Your task to perform on an android device: turn on sleep mode Image 0: 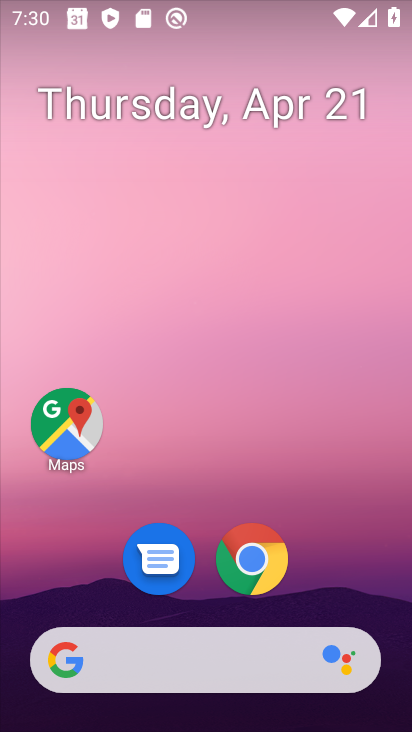
Step 0: drag from (345, 561) to (391, 184)
Your task to perform on an android device: turn on sleep mode Image 1: 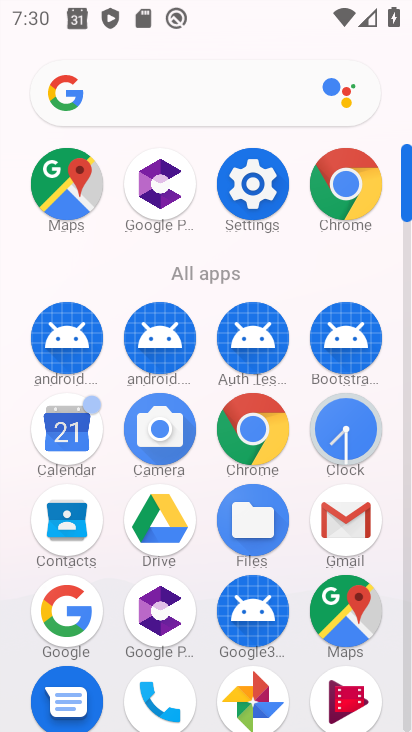
Step 1: click (230, 193)
Your task to perform on an android device: turn on sleep mode Image 2: 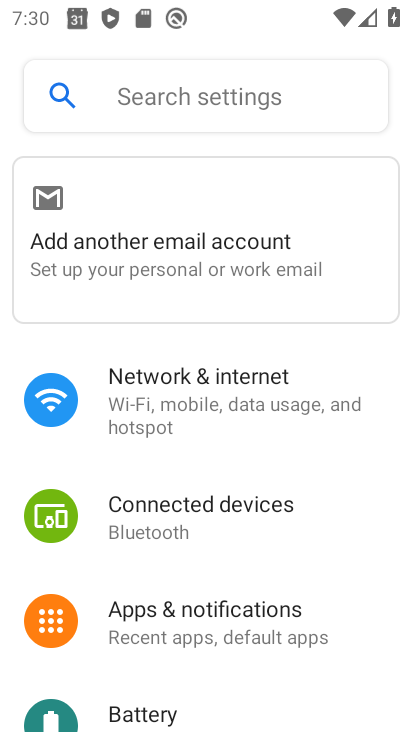
Step 2: click (199, 91)
Your task to perform on an android device: turn on sleep mode Image 3: 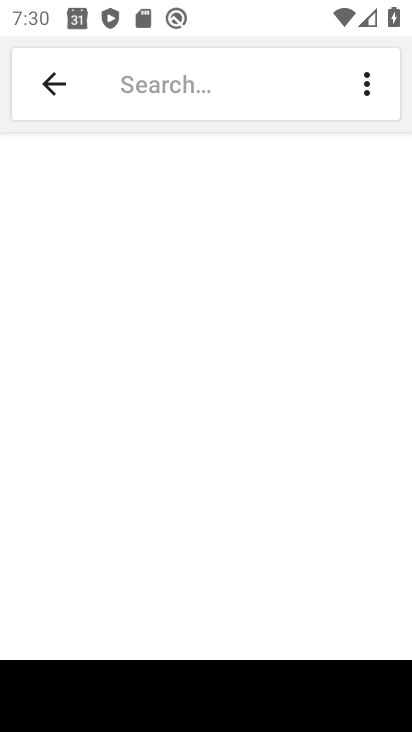
Step 3: type "sleep mode"
Your task to perform on an android device: turn on sleep mode Image 4: 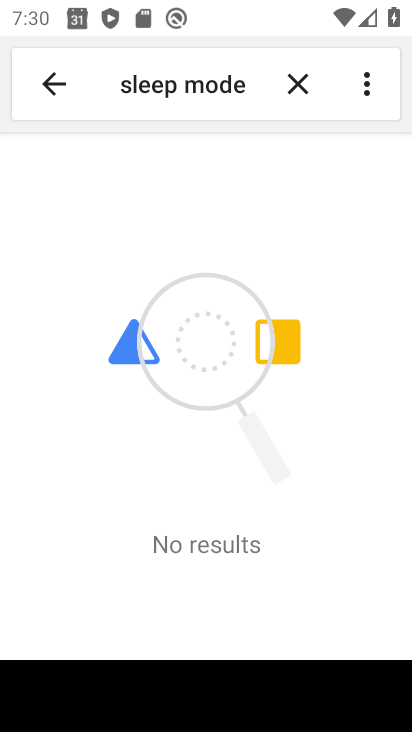
Step 4: task complete